Your task to perform on an android device: turn off wifi Image 0: 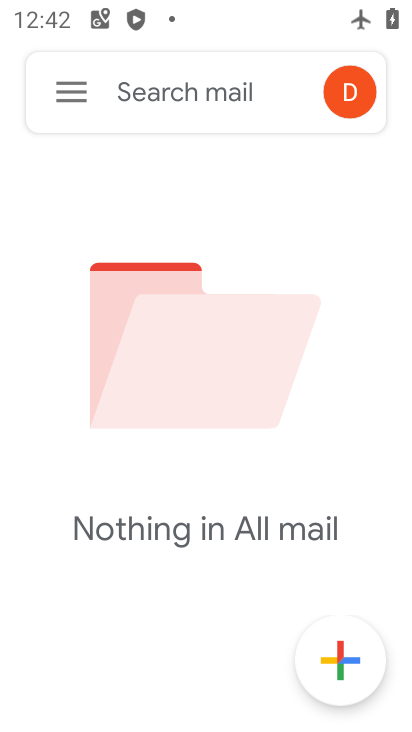
Step 0: drag from (244, 23) to (211, 587)
Your task to perform on an android device: turn off wifi Image 1: 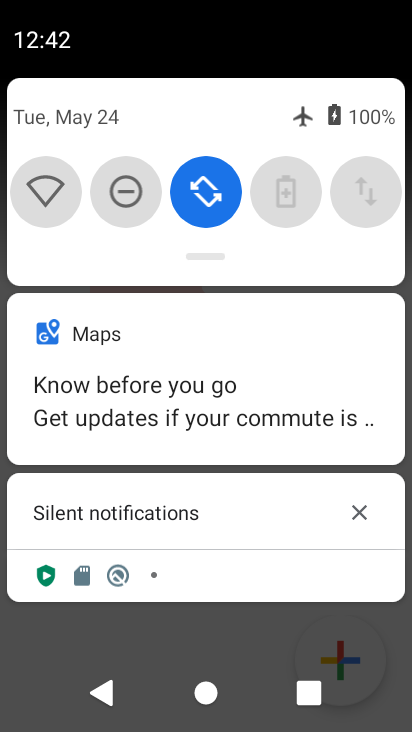
Step 1: task complete